Your task to perform on an android device: Open notification settings Image 0: 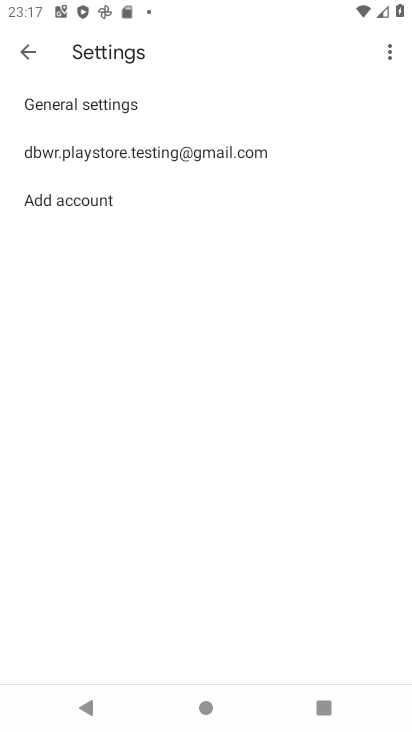
Step 0: press home button
Your task to perform on an android device: Open notification settings Image 1: 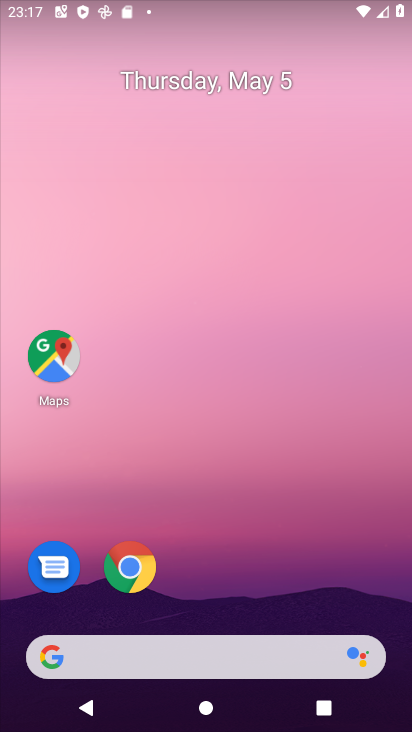
Step 1: drag from (225, 595) to (232, 173)
Your task to perform on an android device: Open notification settings Image 2: 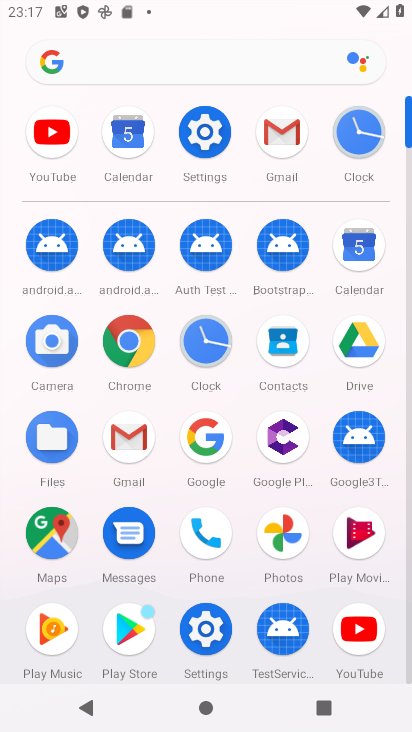
Step 2: click (199, 127)
Your task to perform on an android device: Open notification settings Image 3: 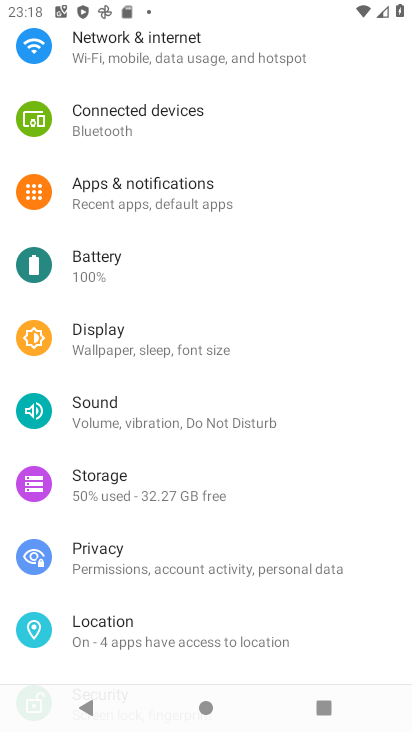
Step 3: click (189, 192)
Your task to perform on an android device: Open notification settings Image 4: 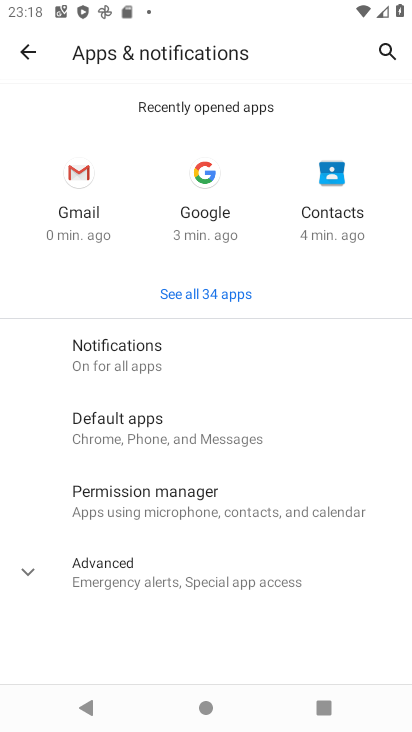
Step 4: click (127, 355)
Your task to perform on an android device: Open notification settings Image 5: 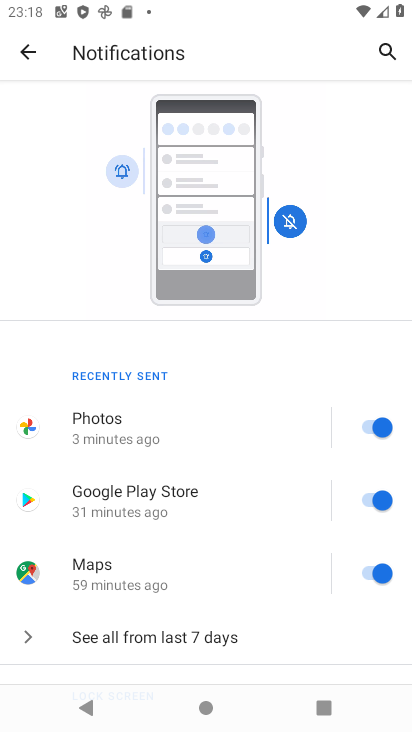
Step 5: task complete